Your task to perform on an android device: change the clock style Image 0: 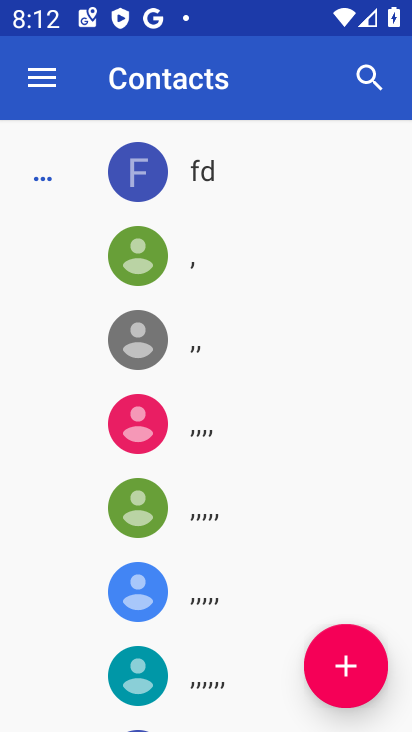
Step 0: press home button
Your task to perform on an android device: change the clock style Image 1: 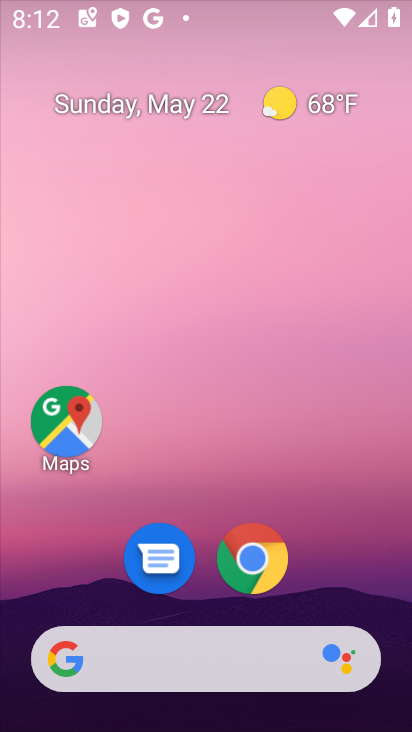
Step 1: drag from (255, 585) to (229, 295)
Your task to perform on an android device: change the clock style Image 2: 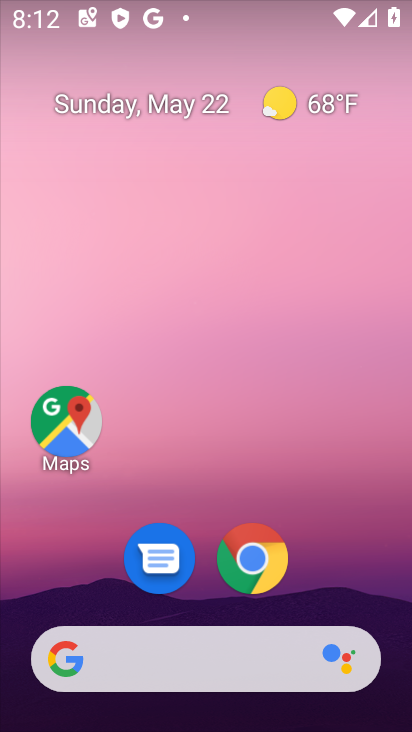
Step 2: drag from (230, 687) to (260, 380)
Your task to perform on an android device: change the clock style Image 3: 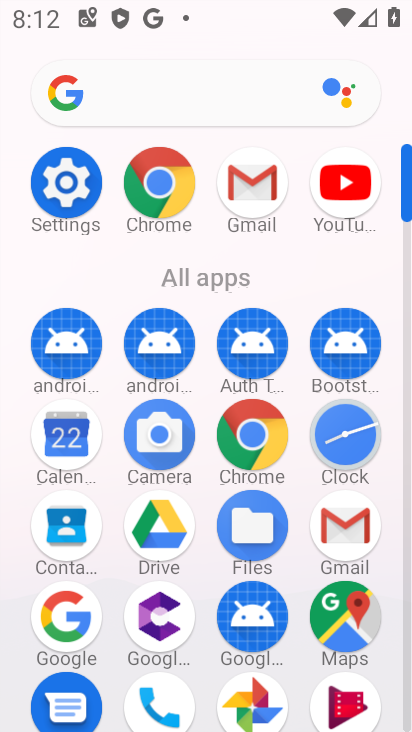
Step 3: click (361, 429)
Your task to perform on an android device: change the clock style Image 4: 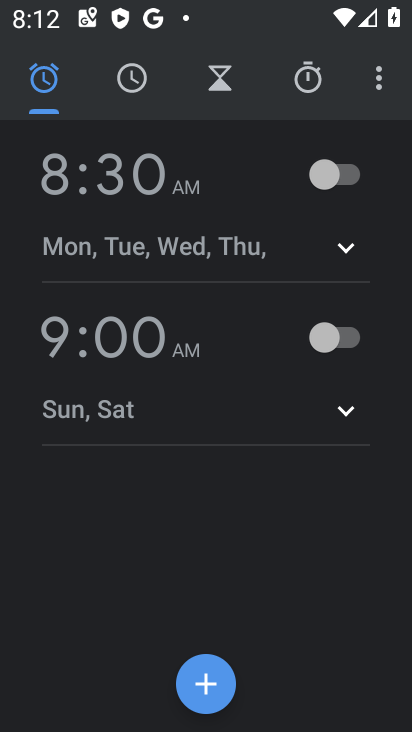
Step 4: click (379, 85)
Your task to perform on an android device: change the clock style Image 5: 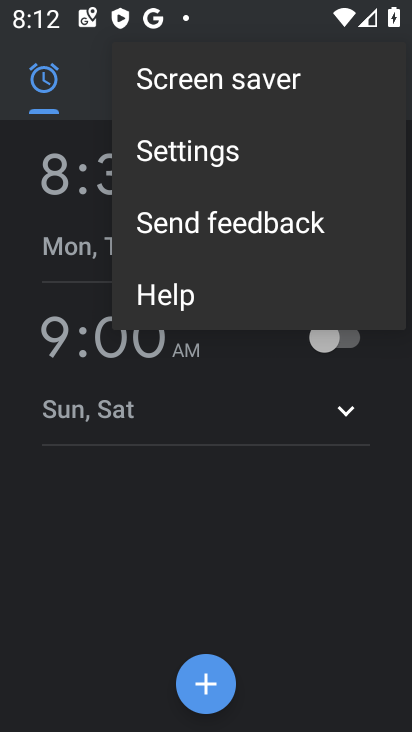
Step 5: click (195, 148)
Your task to perform on an android device: change the clock style Image 6: 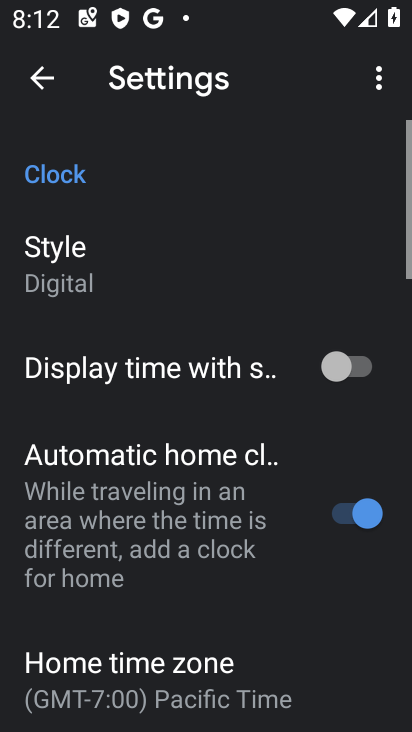
Step 6: click (113, 235)
Your task to perform on an android device: change the clock style Image 7: 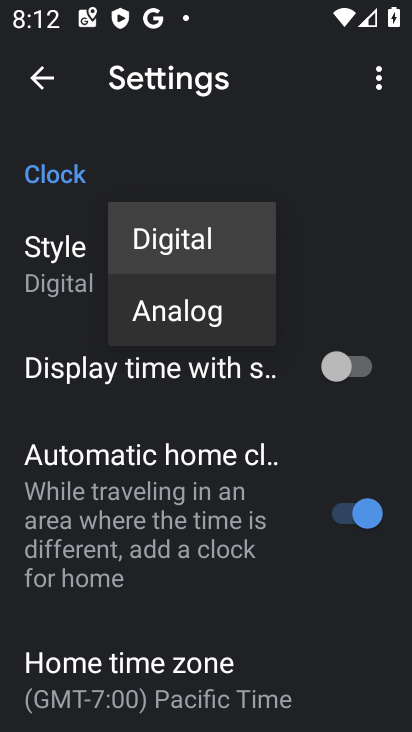
Step 7: click (184, 313)
Your task to perform on an android device: change the clock style Image 8: 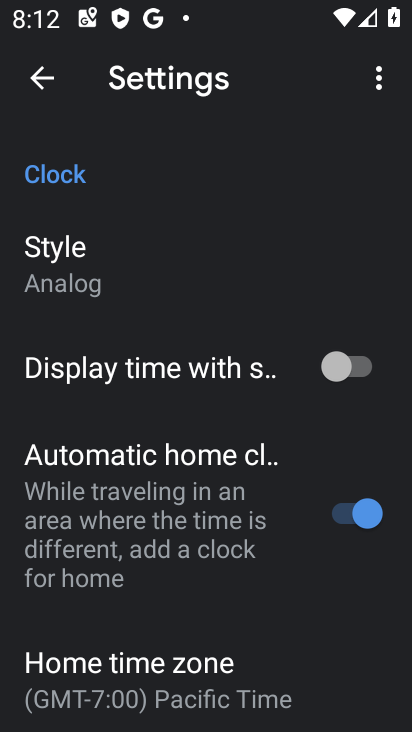
Step 8: task complete